Your task to perform on an android device: change alarm snooze length Image 0: 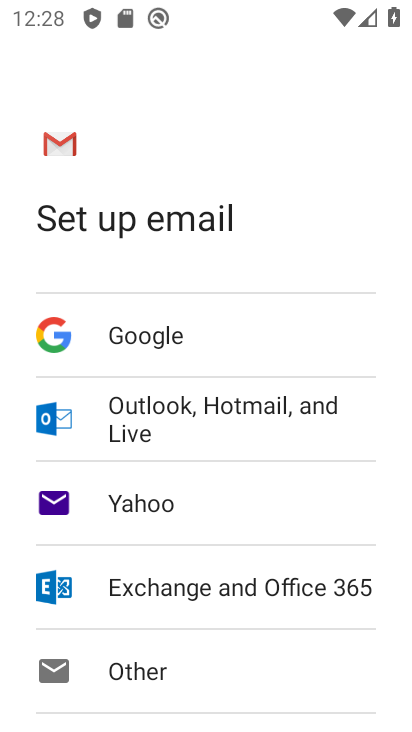
Step 0: press home button
Your task to perform on an android device: change alarm snooze length Image 1: 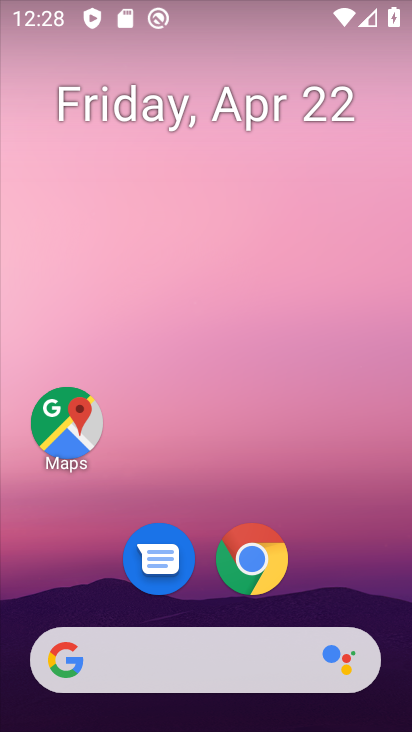
Step 1: drag from (368, 579) to (377, 178)
Your task to perform on an android device: change alarm snooze length Image 2: 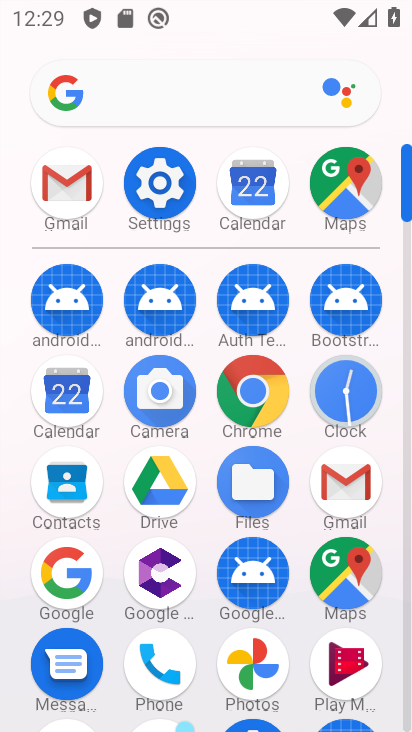
Step 2: click (342, 386)
Your task to perform on an android device: change alarm snooze length Image 3: 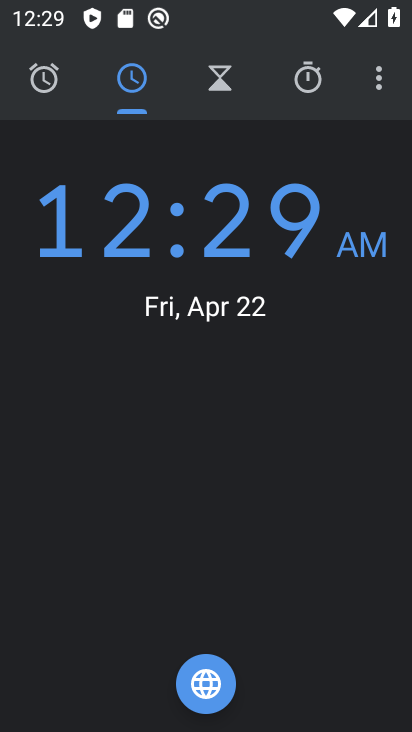
Step 3: click (377, 90)
Your task to perform on an android device: change alarm snooze length Image 4: 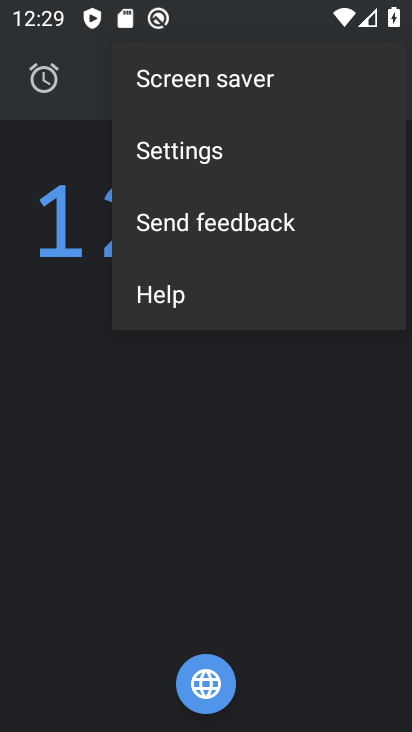
Step 4: click (203, 157)
Your task to perform on an android device: change alarm snooze length Image 5: 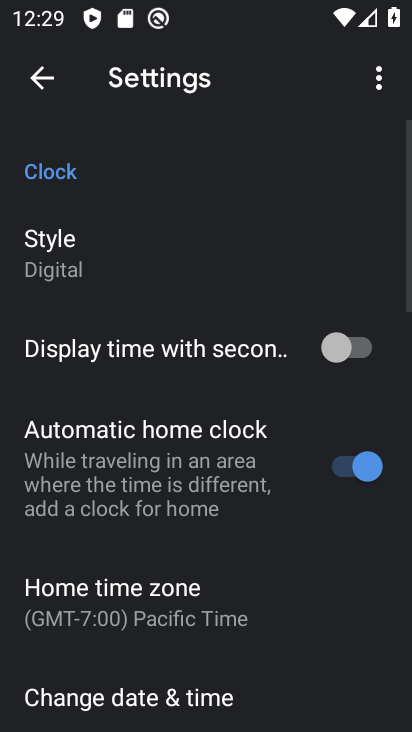
Step 5: drag from (325, 606) to (306, 433)
Your task to perform on an android device: change alarm snooze length Image 6: 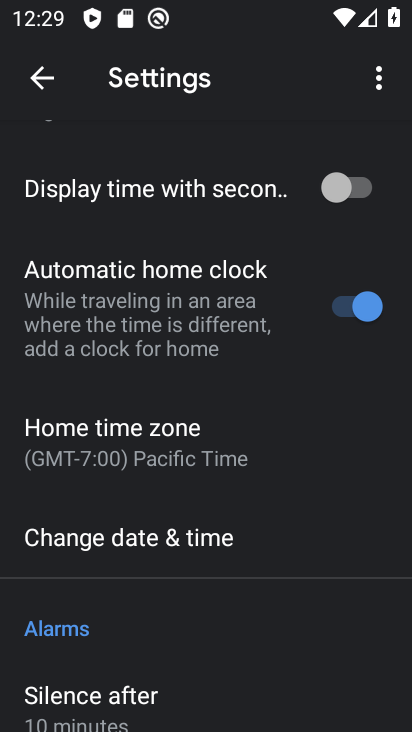
Step 6: drag from (276, 637) to (279, 503)
Your task to perform on an android device: change alarm snooze length Image 7: 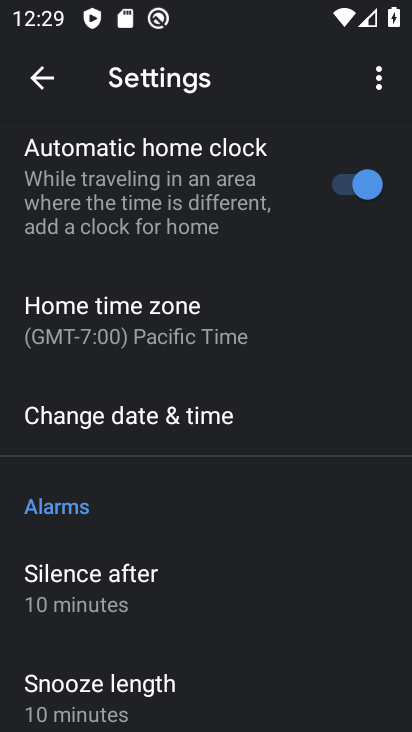
Step 7: drag from (281, 600) to (296, 471)
Your task to perform on an android device: change alarm snooze length Image 8: 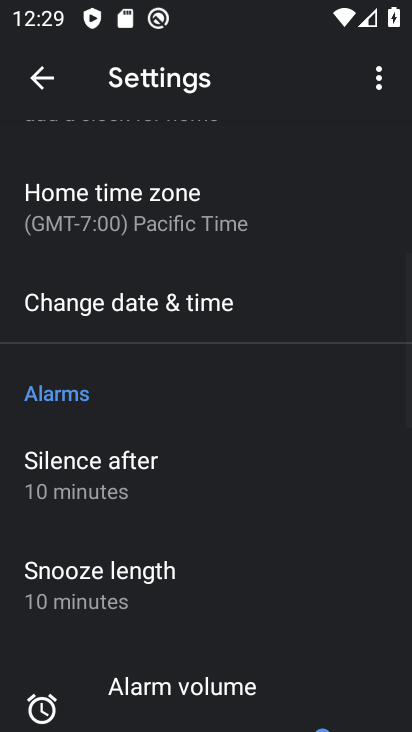
Step 8: drag from (298, 565) to (303, 420)
Your task to perform on an android device: change alarm snooze length Image 9: 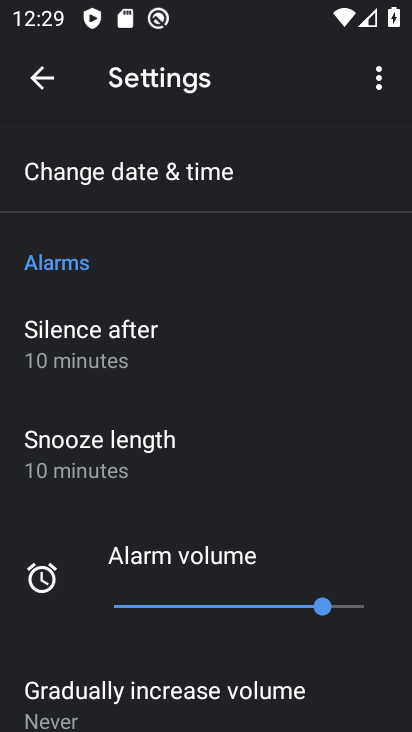
Step 9: drag from (324, 502) to (334, 338)
Your task to perform on an android device: change alarm snooze length Image 10: 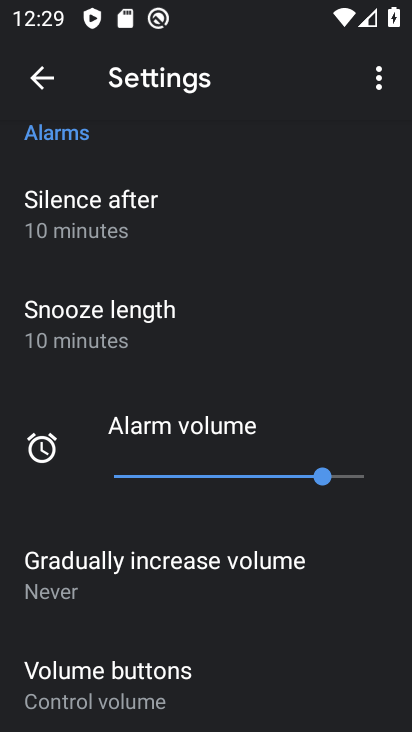
Step 10: drag from (350, 605) to (326, 367)
Your task to perform on an android device: change alarm snooze length Image 11: 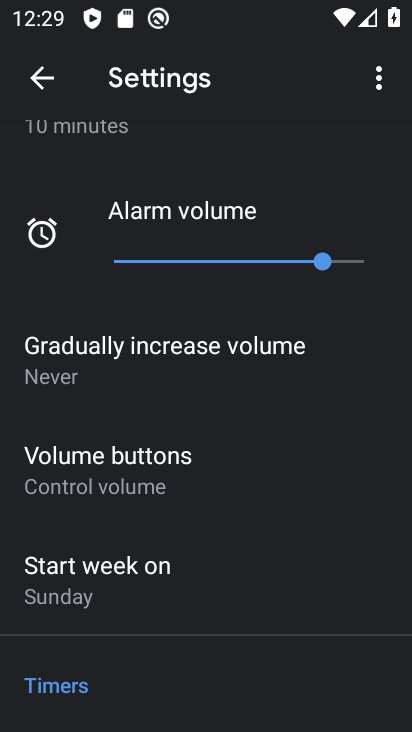
Step 11: drag from (326, 562) to (333, 382)
Your task to perform on an android device: change alarm snooze length Image 12: 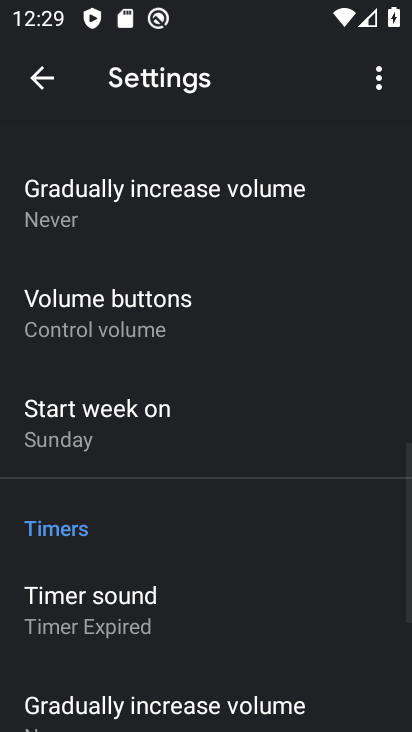
Step 12: drag from (341, 308) to (322, 526)
Your task to perform on an android device: change alarm snooze length Image 13: 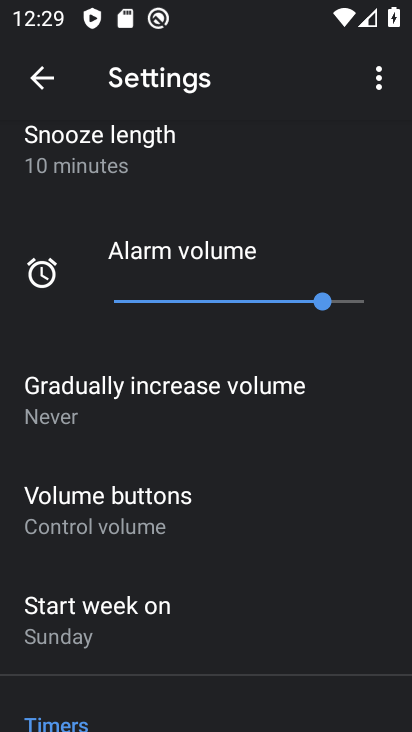
Step 13: drag from (341, 529) to (343, 363)
Your task to perform on an android device: change alarm snooze length Image 14: 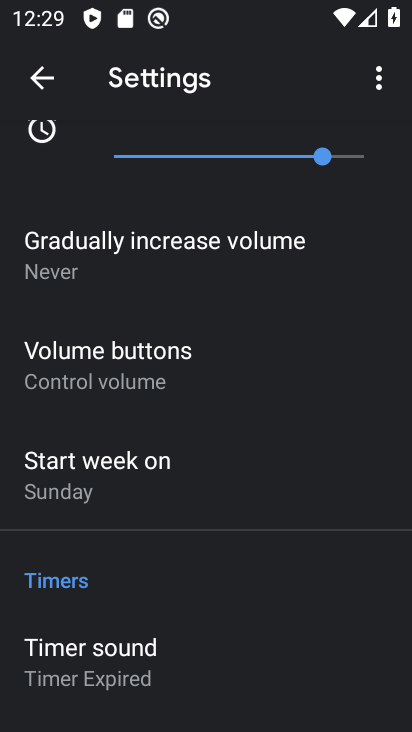
Step 14: drag from (338, 615) to (342, 413)
Your task to perform on an android device: change alarm snooze length Image 15: 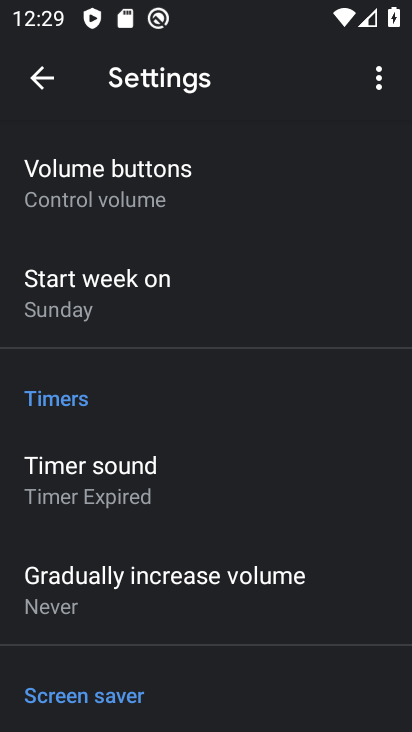
Step 15: drag from (348, 639) to (342, 392)
Your task to perform on an android device: change alarm snooze length Image 16: 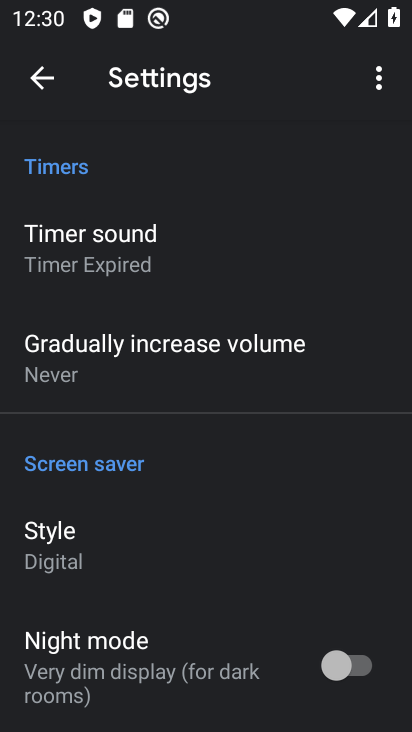
Step 16: drag from (334, 529) to (339, 353)
Your task to perform on an android device: change alarm snooze length Image 17: 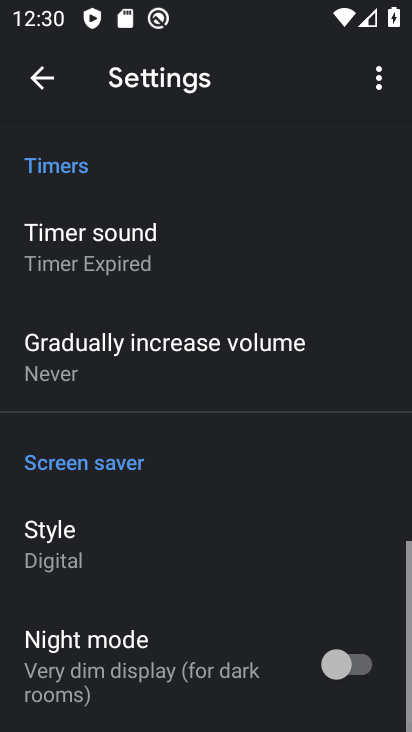
Step 17: drag from (341, 278) to (322, 481)
Your task to perform on an android device: change alarm snooze length Image 18: 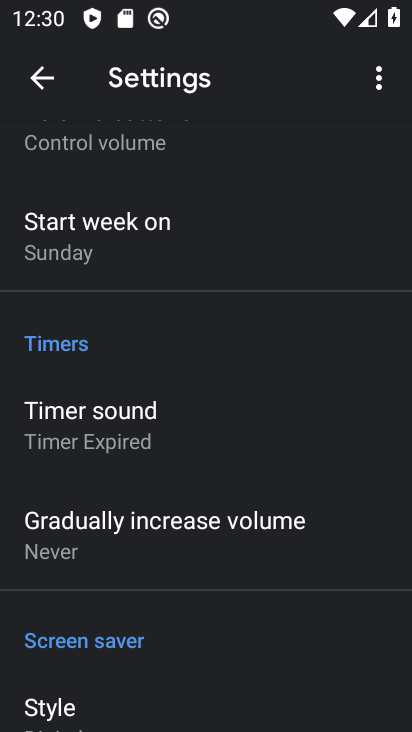
Step 18: drag from (309, 352) to (308, 526)
Your task to perform on an android device: change alarm snooze length Image 19: 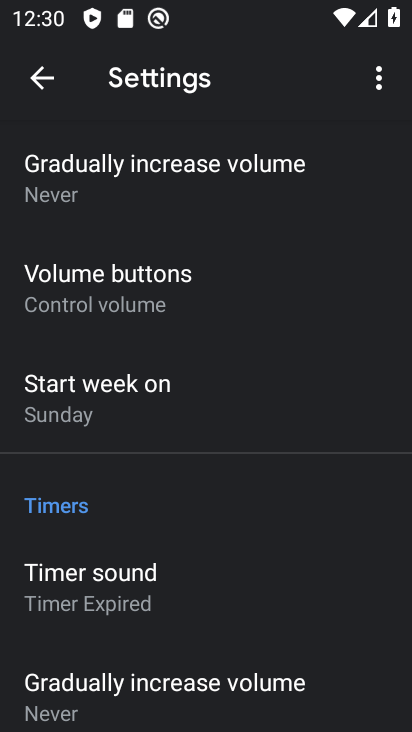
Step 19: drag from (306, 322) to (305, 532)
Your task to perform on an android device: change alarm snooze length Image 20: 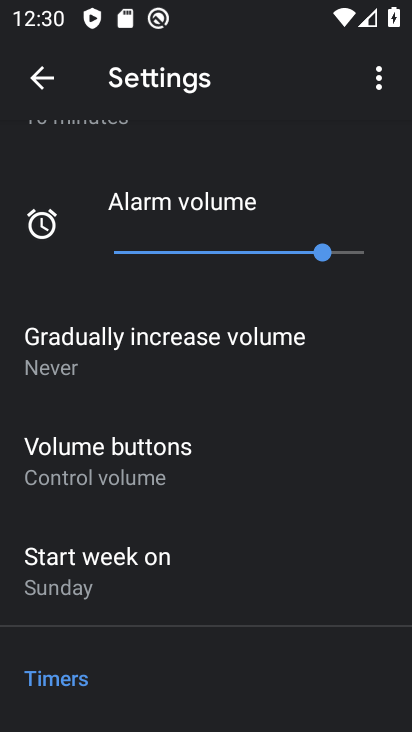
Step 20: drag from (367, 205) to (362, 448)
Your task to perform on an android device: change alarm snooze length Image 21: 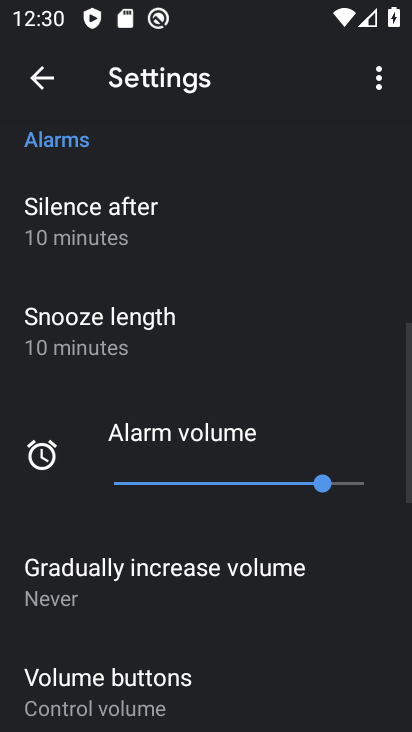
Step 21: click (138, 331)
Your task to perform on an android device: change alarm snooze length Image 22: 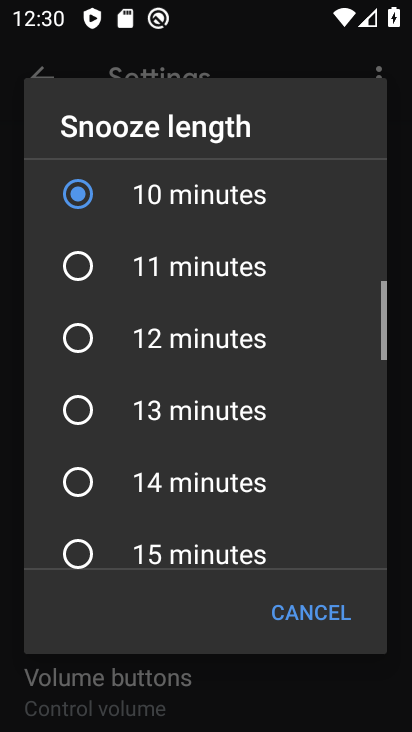
Step 22: click (145, 333)
Your task to perform on an android device: change alarm snooze length Image 23: 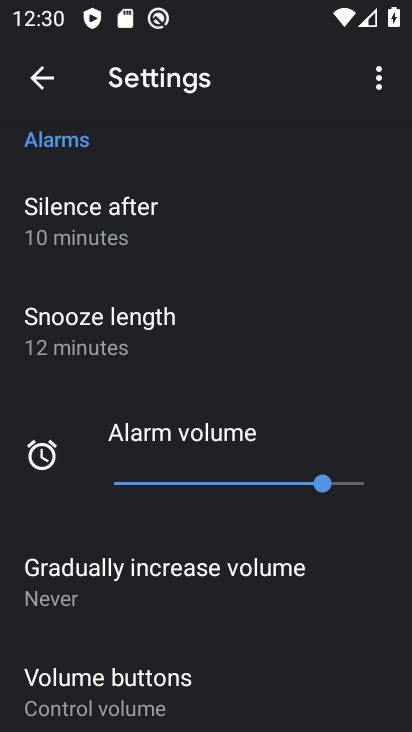
Step 23: task complete